Your task to perform on an android device: Open calendar and show me the first week of next month Image 0: 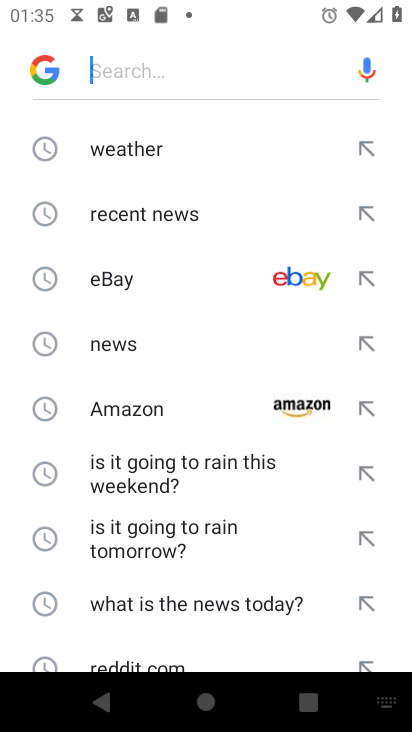
Step 0: press home button
Your task to perform on an android device: Open calendar and show me the first week of next month Image 1: 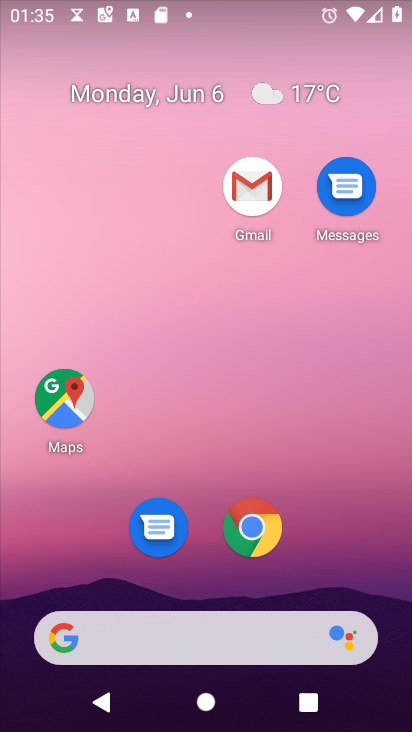
Step 1: drag from (335, 559) to (302, 30)
Your task to perform on an android device: Open calendar and show me the first week of next month Image 2: 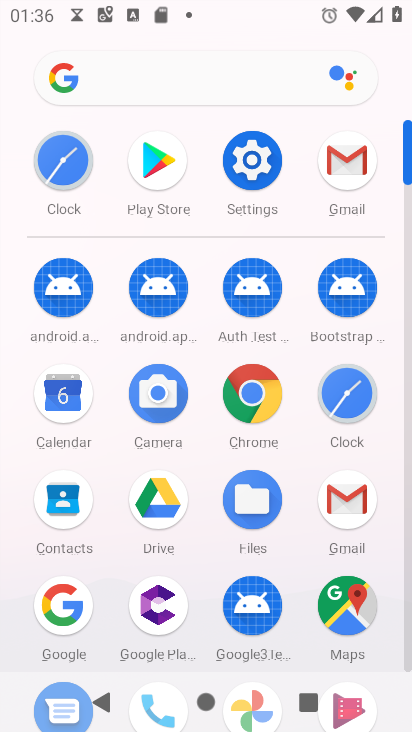
Step 2: click (64, 396)
Your task to perform on an android device: Open calendar and show me the first week of next month Image 3: 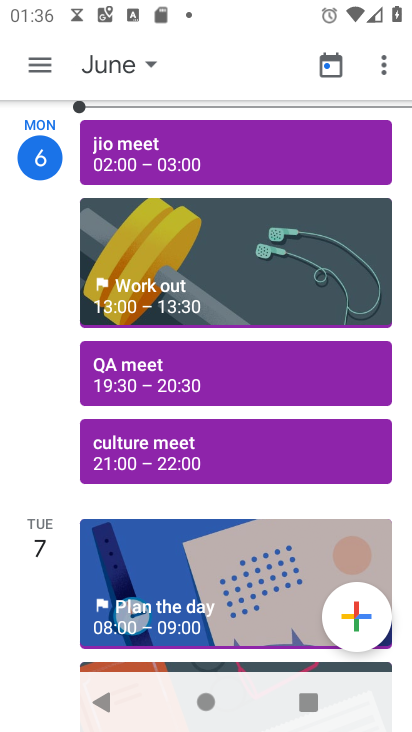
Step 3: click (46, 65)
Your task to perform on an android device: Open calendar and show me the first week of next month Image 4: 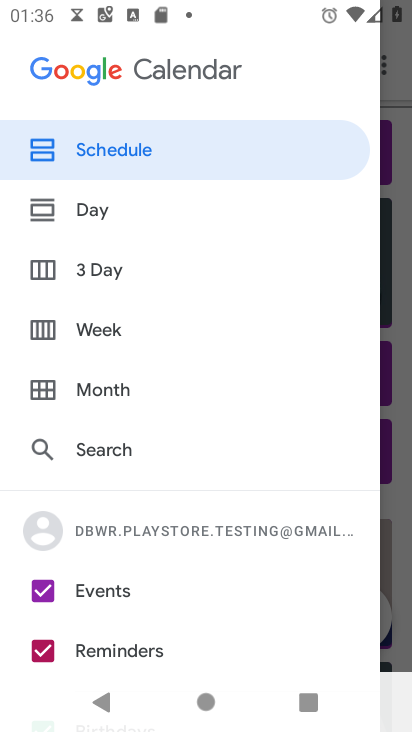
Step 4: click (92, 324)
Your task to perform on an android device: Open calendar and show me the first week of next month Image 5: 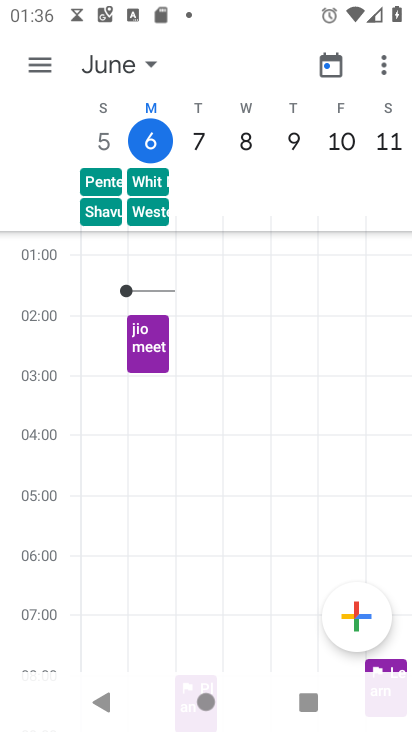
Step 5: click (124, 58)
Your task to perform on an android device: Open calendar and show me the first week of next month Image 6: 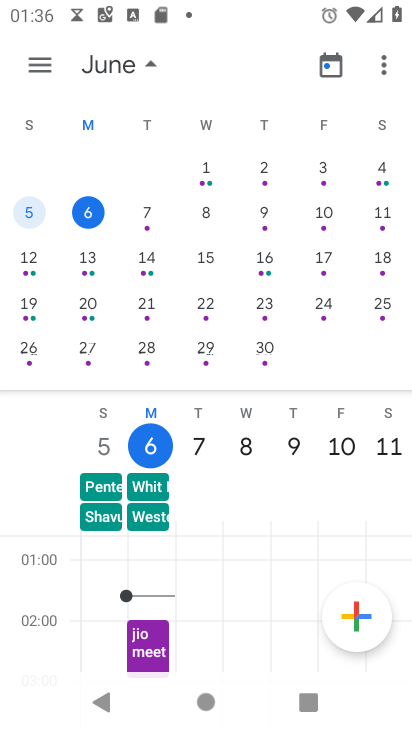
Step 6: drag from (345, 348) to (28, 349)
Your task to perform on an android device: Open calendar and show me the first week of next month Image 7: 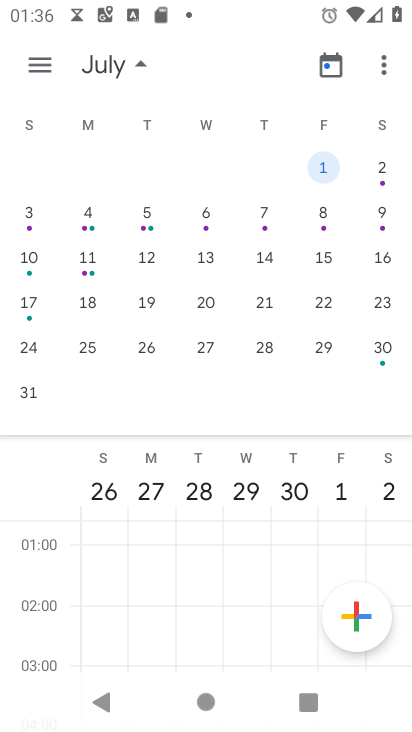
Step 7: click (336, 167)
Your task to perform on an android device: Open calendar and show me the first week of next month Image 8: 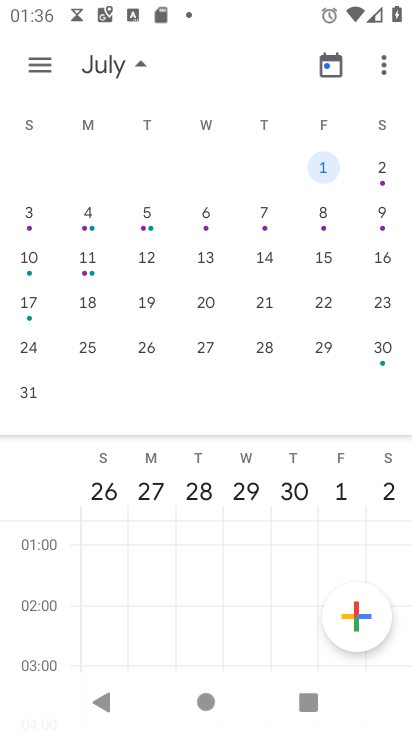
Step 8: task complete